Your task to perform on an android device: turn on airplane mode Image 0: 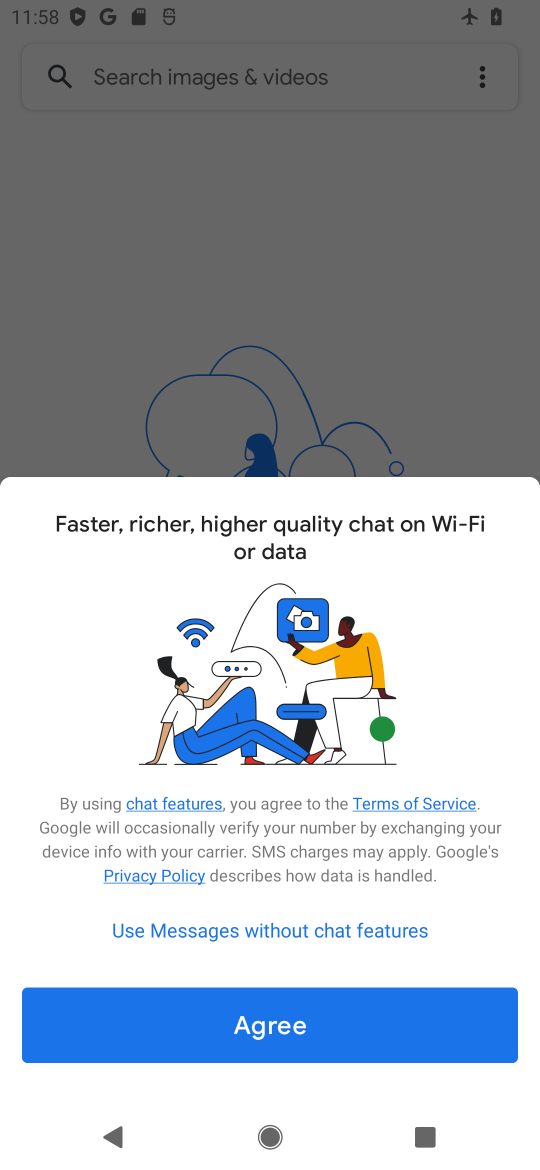
Step 0: press home button
Your task to perform on an android device: turn on airplane mode Image 1: 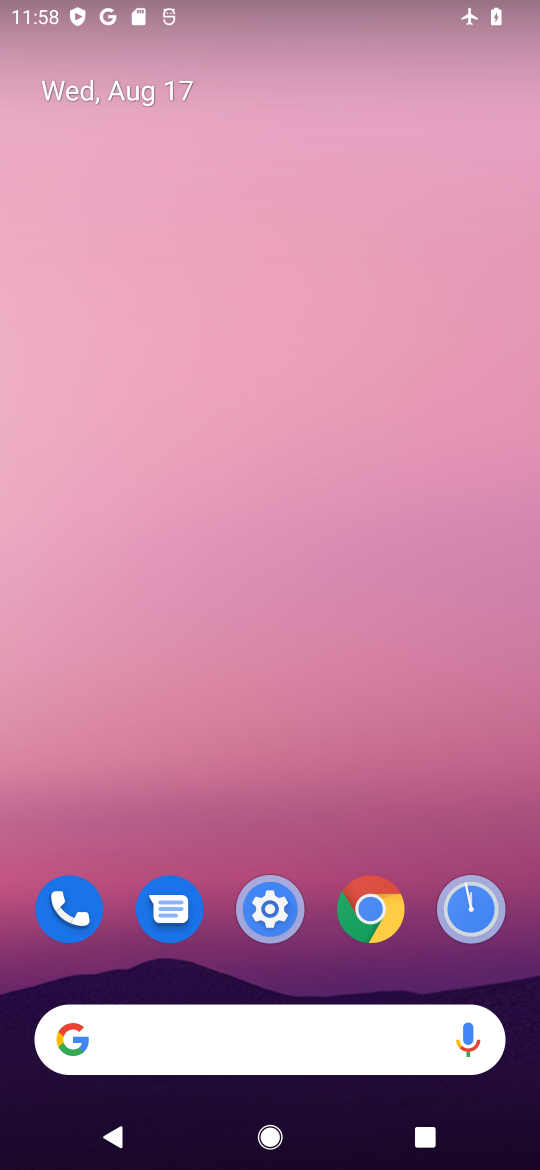
Step 1: click (262, 917)
Your task to perform on an android device: turn on airplane mode Image 2: 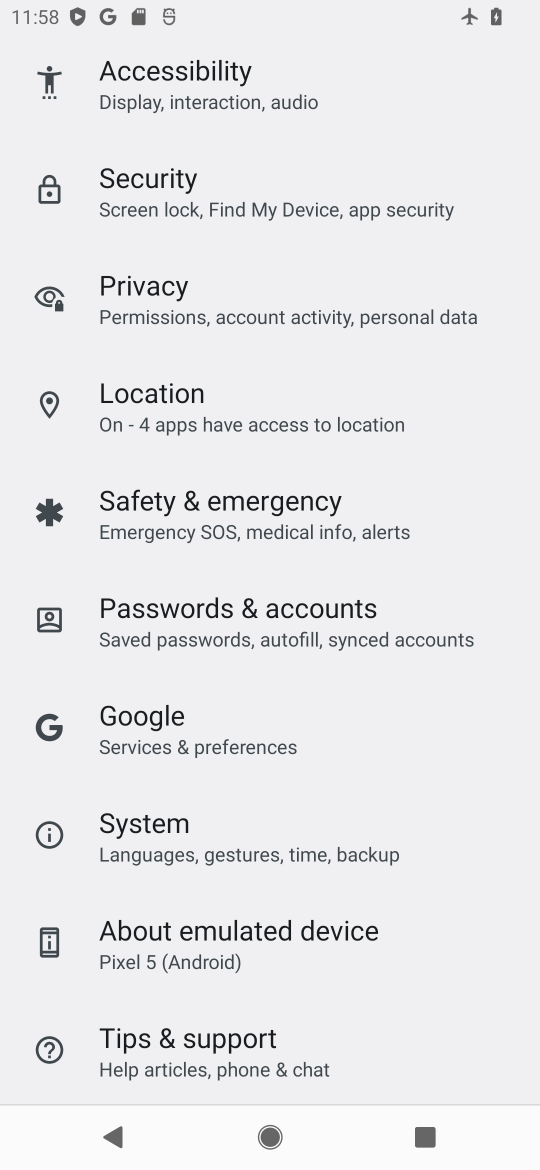
Step 2: drag from (346, 172) to (338, 729)
Your task to perform on an android device: turn on airplane mode Image 3: 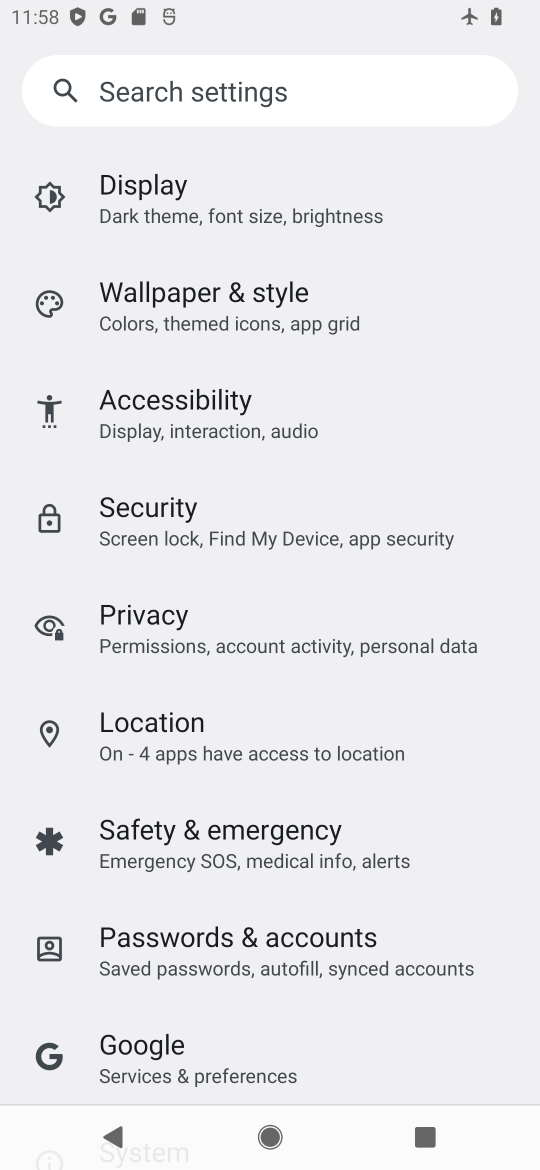
Step 3: drag from (366, 323) to (337, 907)
Your task to perform on an android device: turn on airplane mode Image 4: 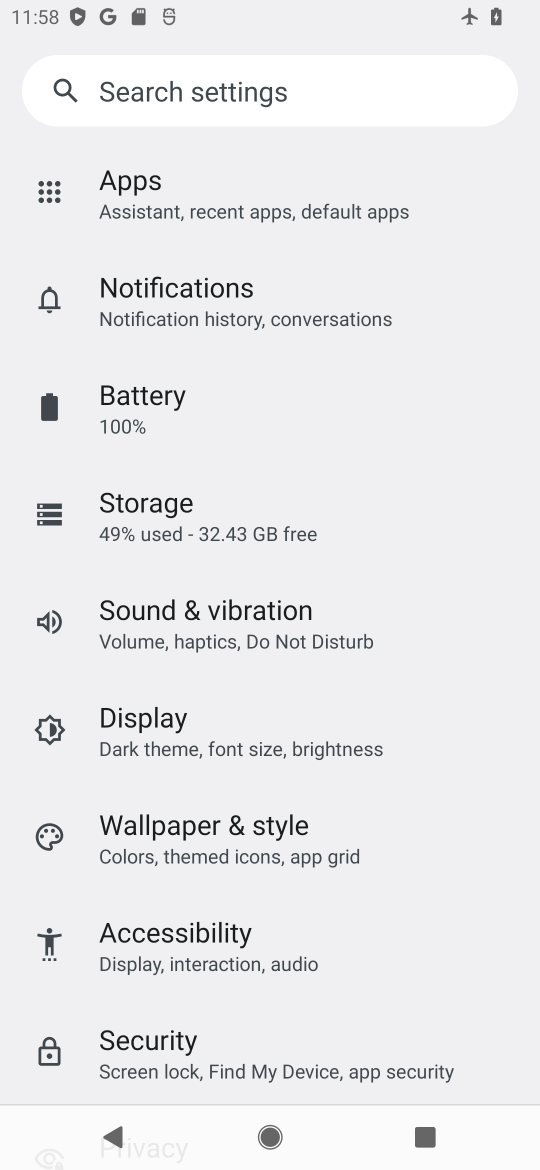
Step 4: drag from (324, 377) to (299, 806)
Your task to perform on an android device: turn on airplane mode Image 5: 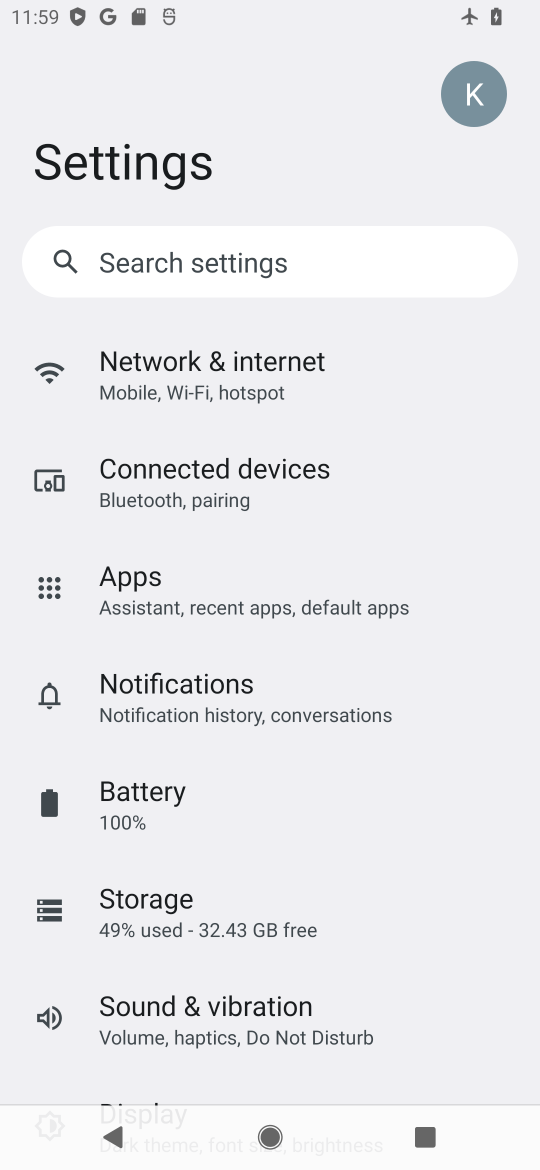
Step 5: click (214, 295)
Your task to perform on an android device: turn on airplane mode Image 6: 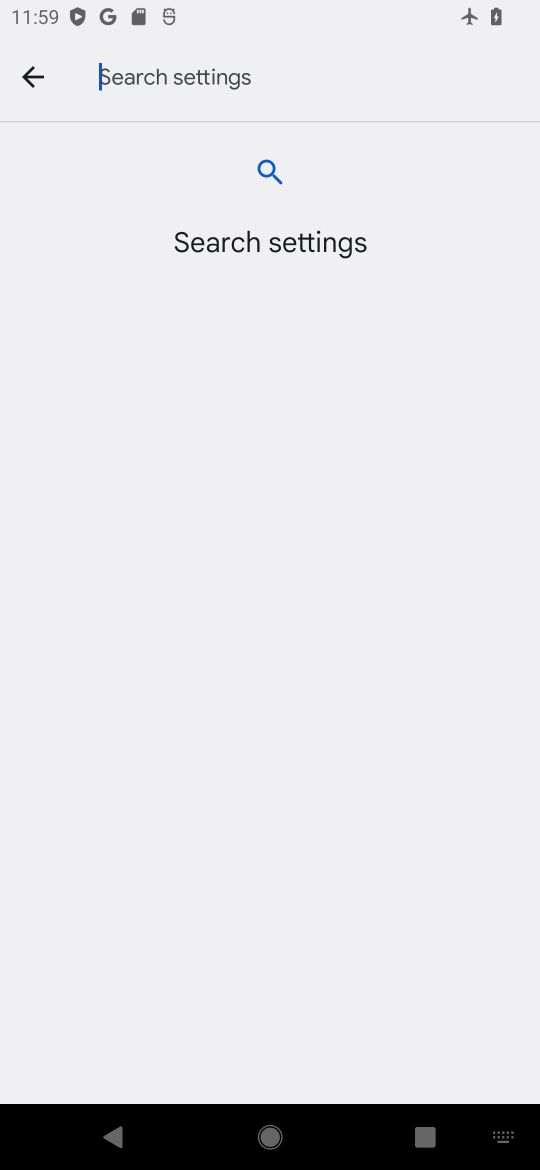
Step 6: click (29, 63)
Your task to perform on an android device: turn on airplane mode Image 7: 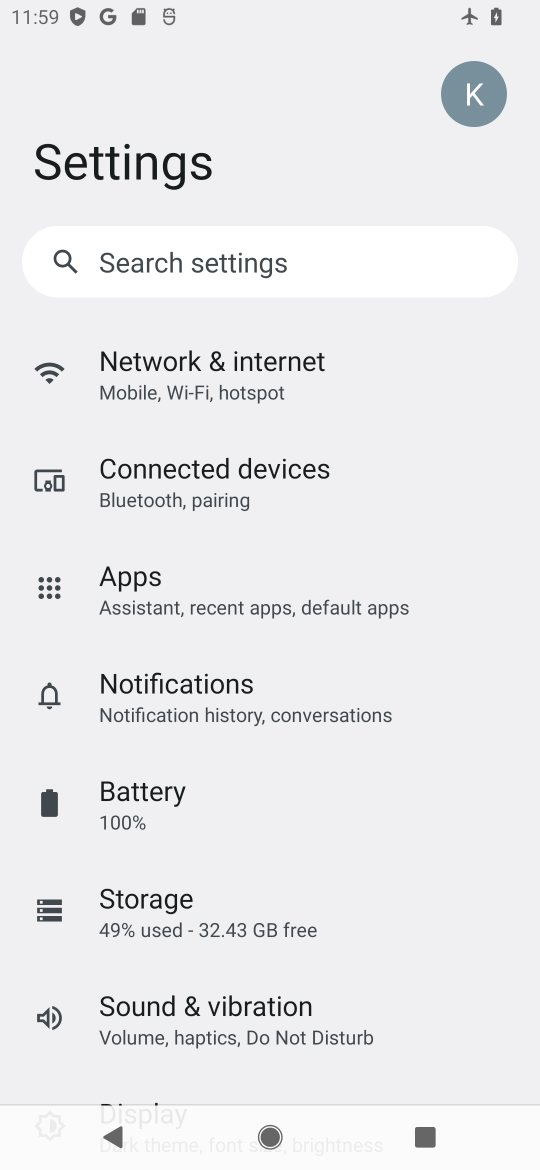
Step 7: click (185, 361)
Your task to perform on an android device: turn on airplane mode Image 8: 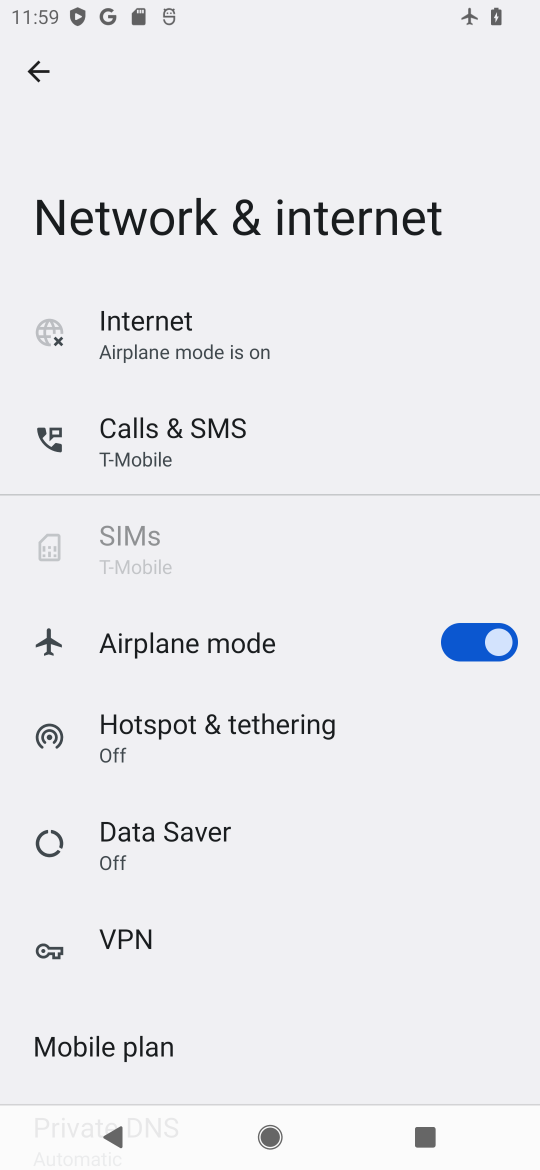
Step 8: task complete